Your task to perform on an android device: What's the weather going to be tomorrow? Image 0: 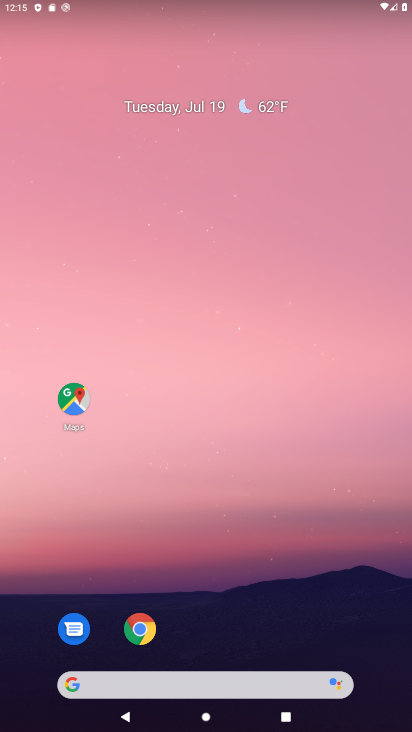
Step 0: drag from (216, 565) to (234, 32)
Your task to perform on an android device: What's the weather going to be tomorrow? Image 1: 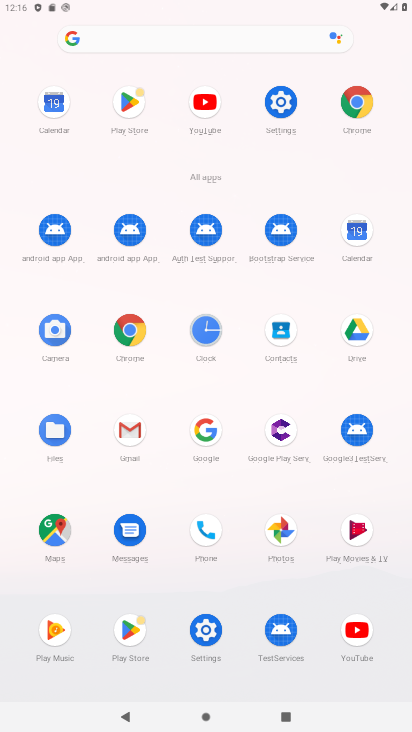
Step 1: click (210, 433)
Your task to perform on an android device: What's the weather going to be tomorrow? Image 2: 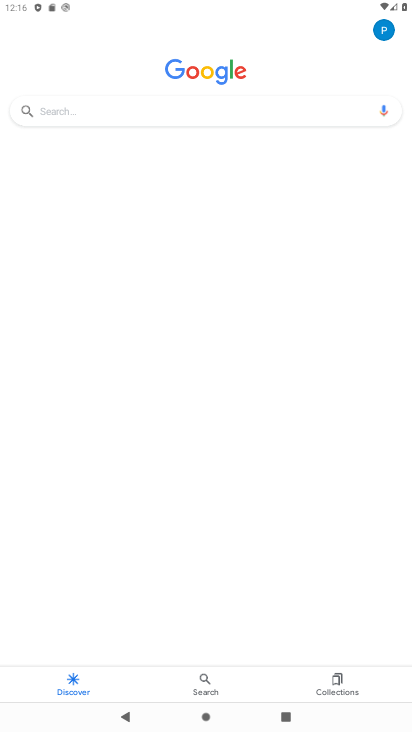
Step 2: click (158, 105)
Your task to perform on an android device: What's the weather going to be tomorrow? Image 3: 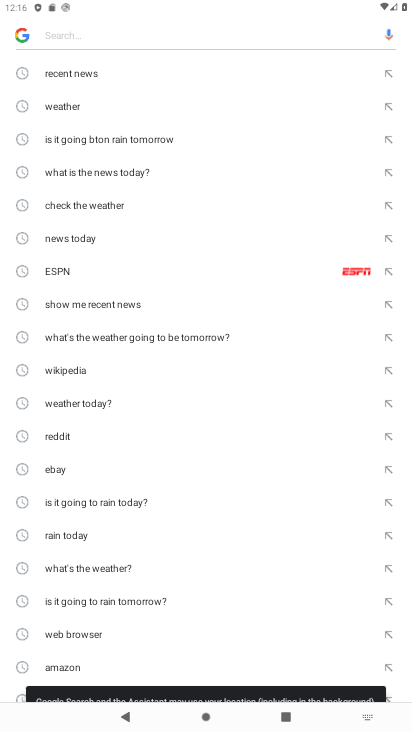
Step 3: click (82, 103)
Your task to perform on an android device: What's the weather going to be tomorrow? Image 4: 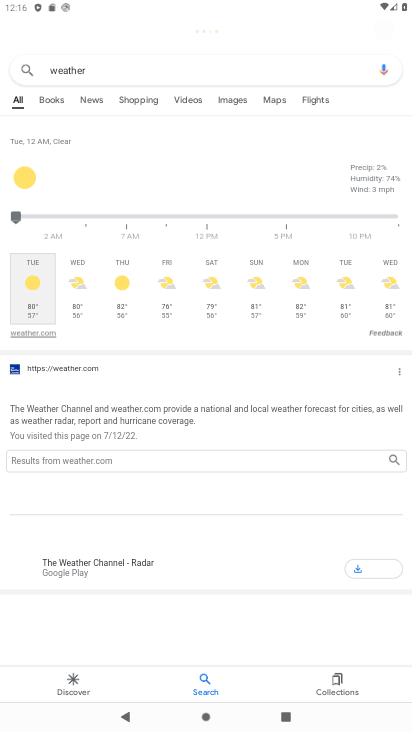
Step 4: click (77, 304)
Your task to perform on an android device: What's the weather going to be tomorrow? Image 5: 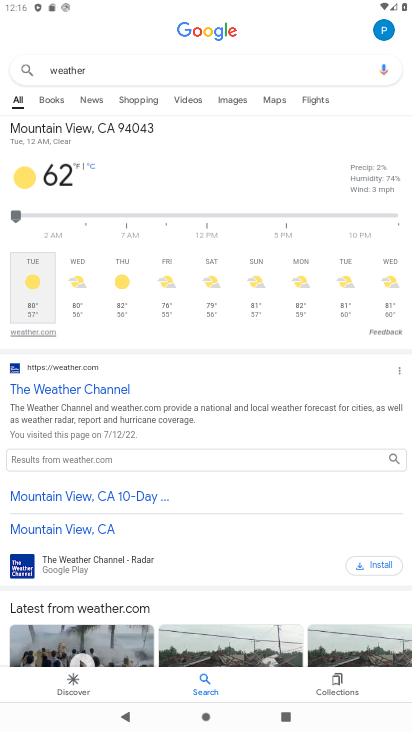
Step 5: click (76, 305)
Your task to perform on an android device: What's the weather going to be tomorrow? Image 6: 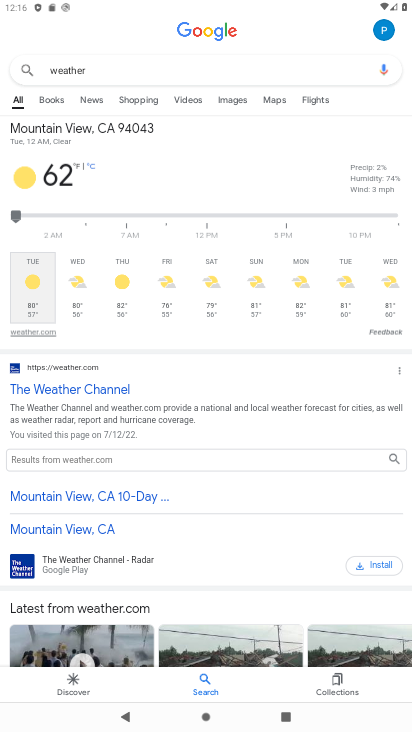
Step 6: click (76, 306)
Your task to perform on an android device: What's the weather going to be tomorrow? Image 7: 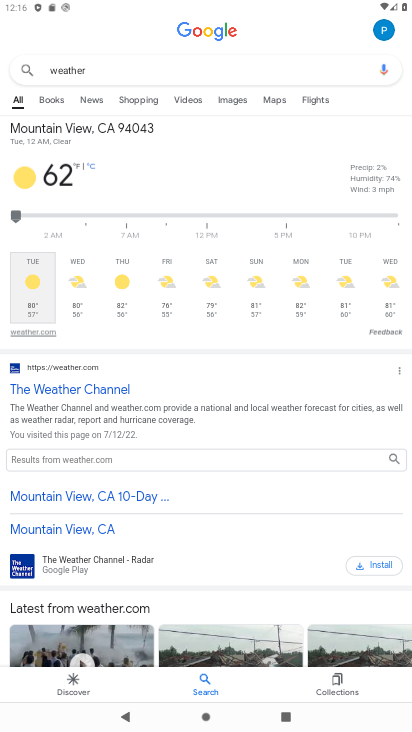
Step 7: task complete